Your task to perform on an android device: Clear all items from cart on target.com. Image 0: 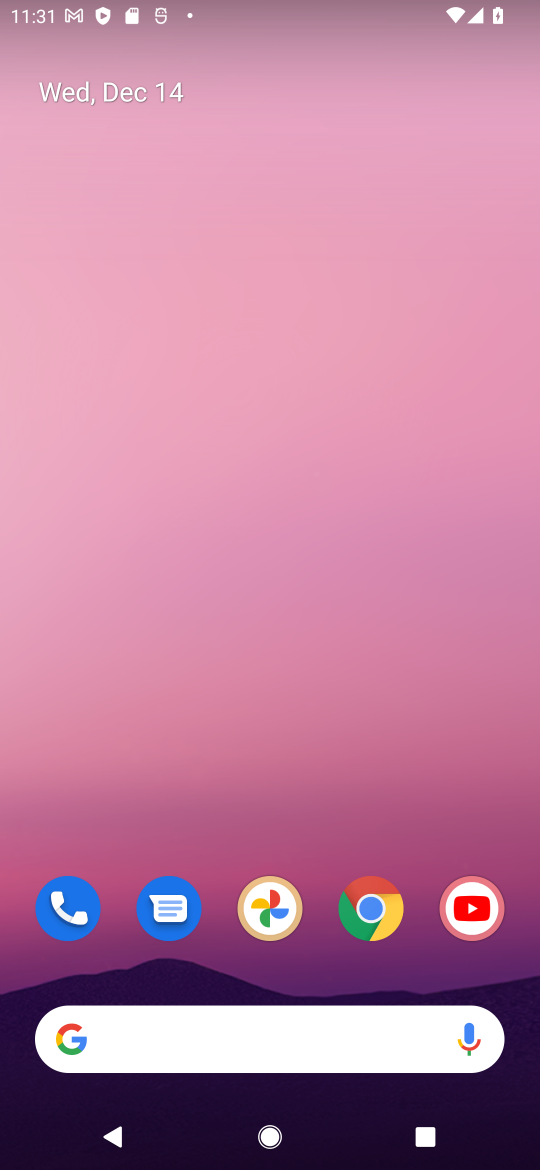
Step 0: click (374, 924)
Your task to perform on an android device: Clear all items from cart on target.com. Image 1: 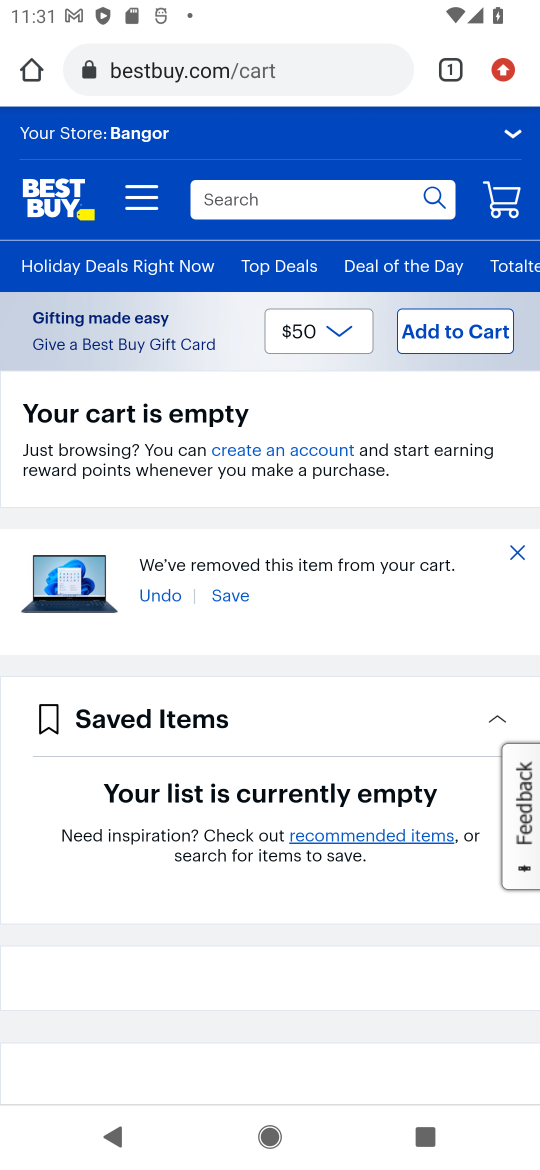
Step 1: click (232, 75)
Your task to perform on an android device: Clear all items from cart on target.com. Image 2: 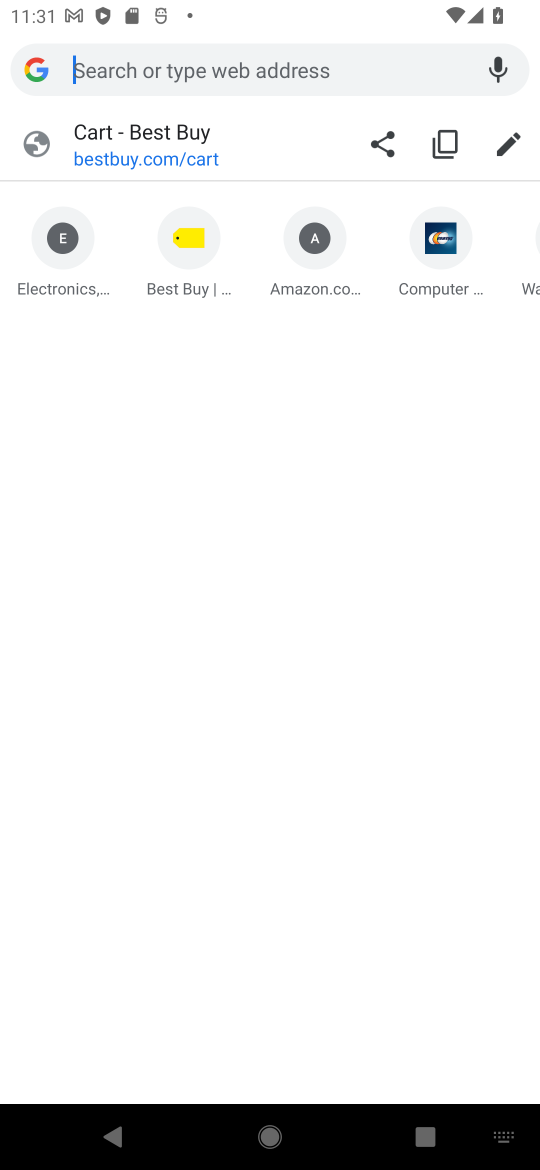
Step 2: type "target.com"
Your task to perform on an android device: Clear all items from cart on target.com. Image 3: 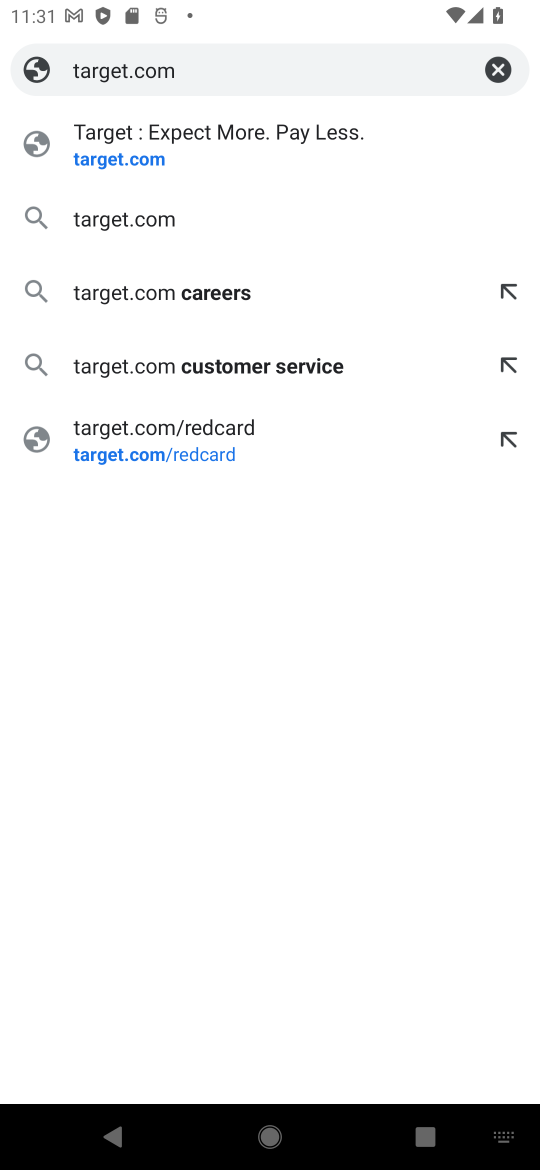
Step 3: click (107, 169)
Your task to perform on an android device: Clear all items from cart on target.com. Image 4: 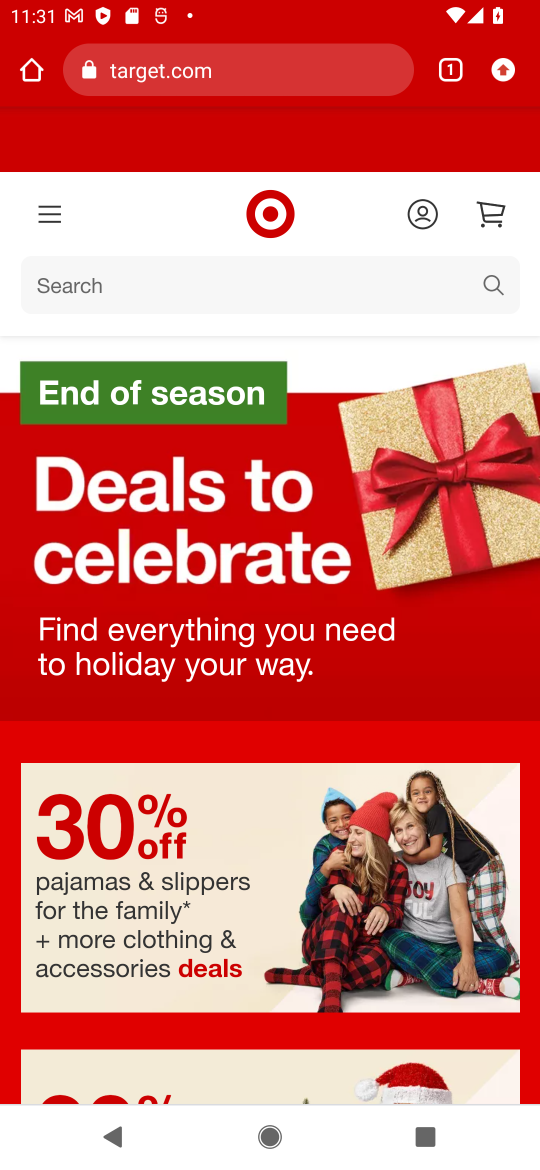
Step 4: click (494, 215)
Your task to perform on an android device: Clear all items from cart on target.com. Image 5: 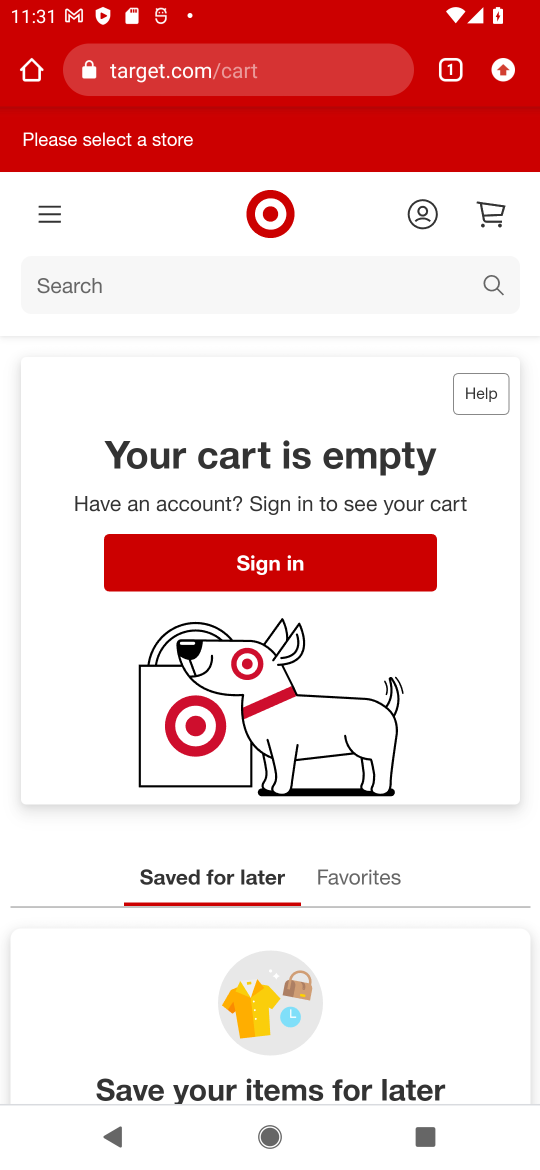
Step 5: task complete